Your task to perform on an android device: Open Wikipedia Image 0: 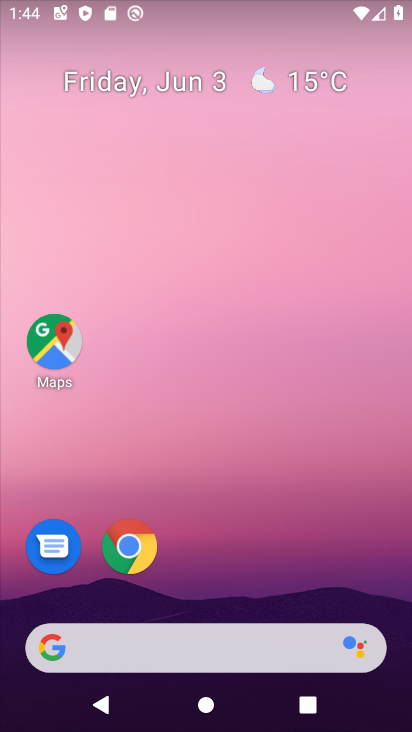
Step 0: drag from (302, 479) to (131, 7)
Your task to perform on an android device: Open Wikipedia Image 1: 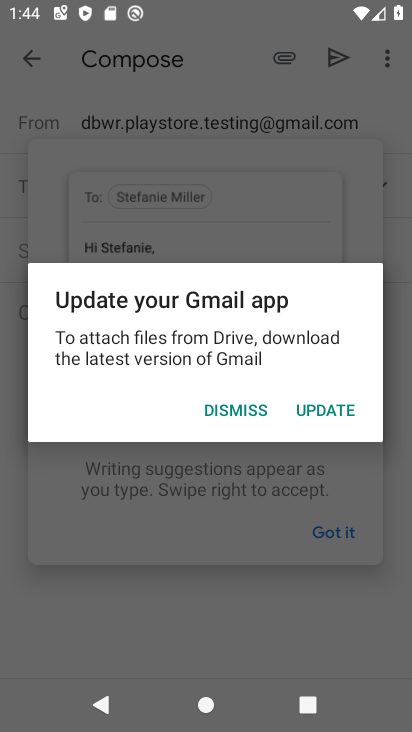
Step 1: click (65, 155)
Your task to perform on an android device: Open Wikipedia Image 2: 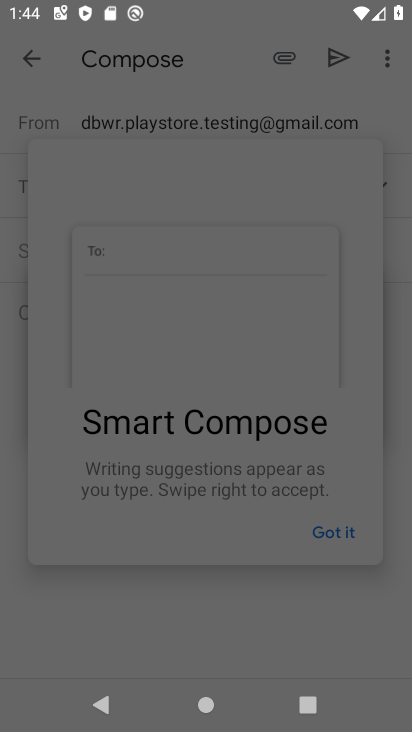
Step 2: press home button
Your task to perform on an android device: Open Wikipedia Image 3: 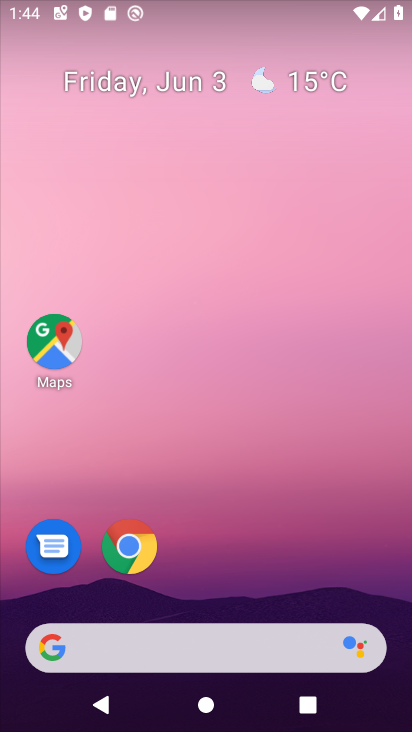
Step 3: drag from (330, 467) to (273, 22)
Your task to perform on an android device: Open Wikipedia Image 4: 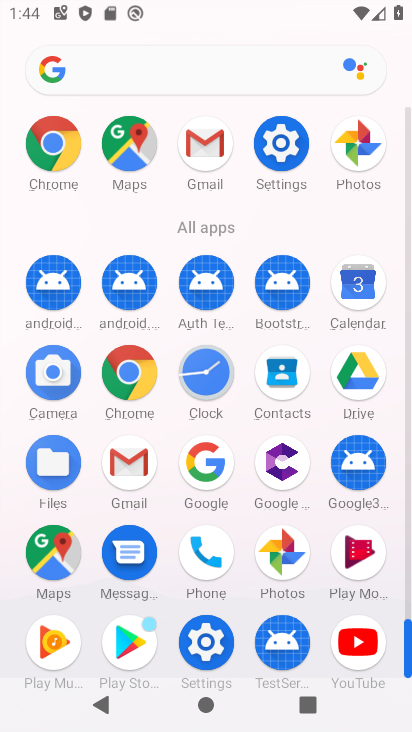
Step 4: click (57, 146)
Your task to perform on an android device: Open Wikipedia Image 5: 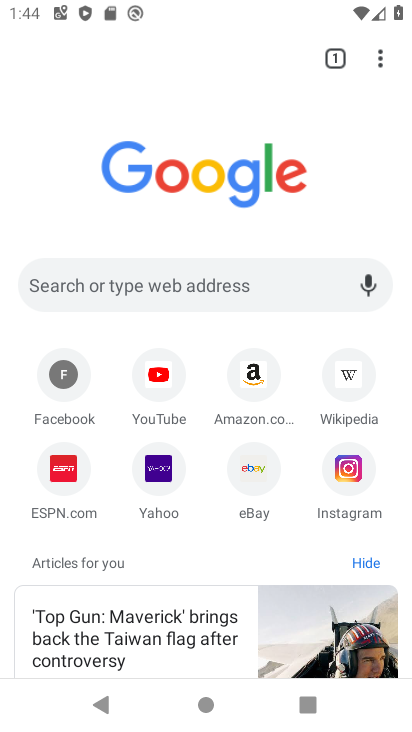
Step 5: click (336, 384)
Your task to perform on an android device: Open Wikipedia Image 6: 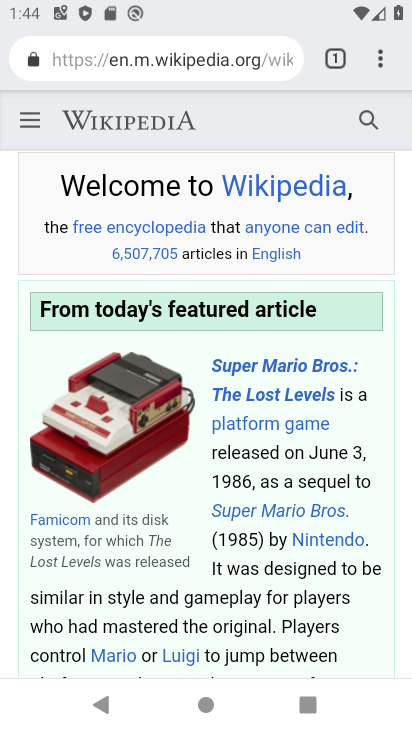
Step 6: task complete